Your task to perform on an android device: toggle javascript in the chrome app Image 0: 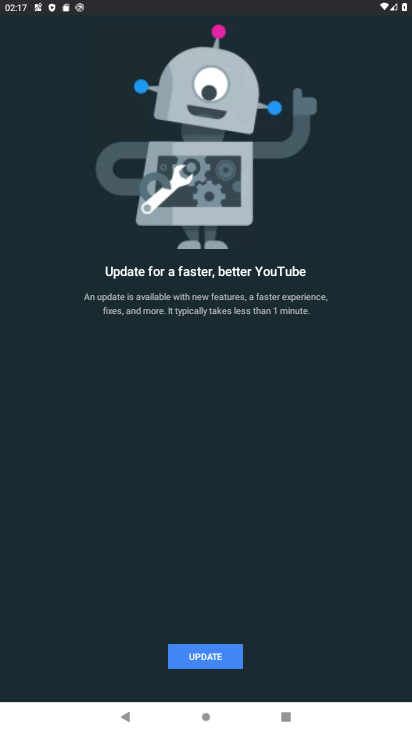
Step 0: press back button
Your task to perform on an android device: toggle javascript in the chrome app Image 1: 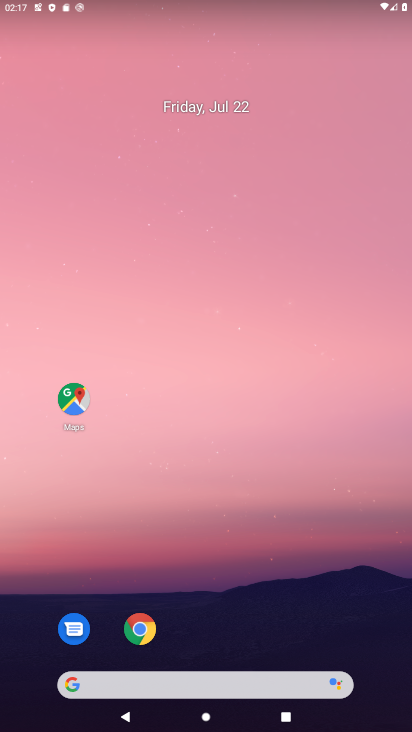
Step 1: click (131, 641)
Your task to perform on an android device: toggle javascript in the chrome app Image 2: 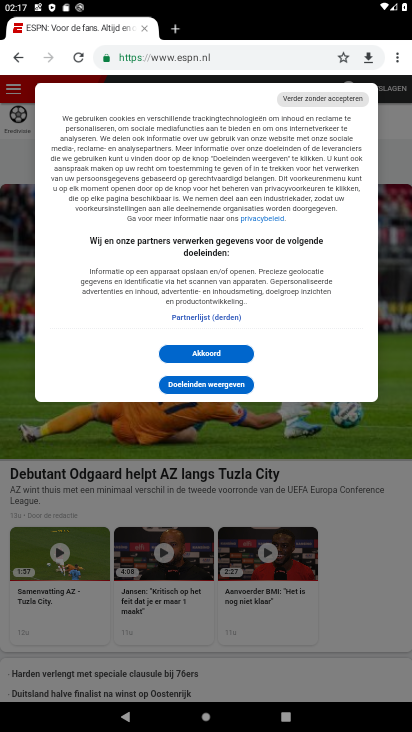
Step 2: click (396, 57)
Your task to perform on an android device: toggle javascript in the chrome app Image 3: 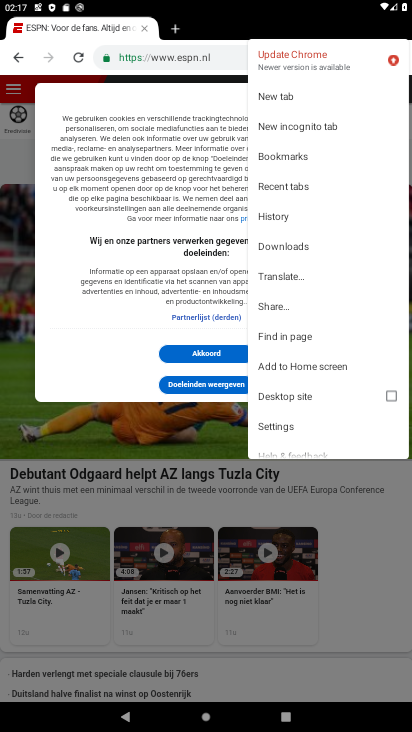
Step 3: drag from (289, 422) to (362, 154)
Your task to perform on an android device: toggle javascript in the chrome app Image 4: 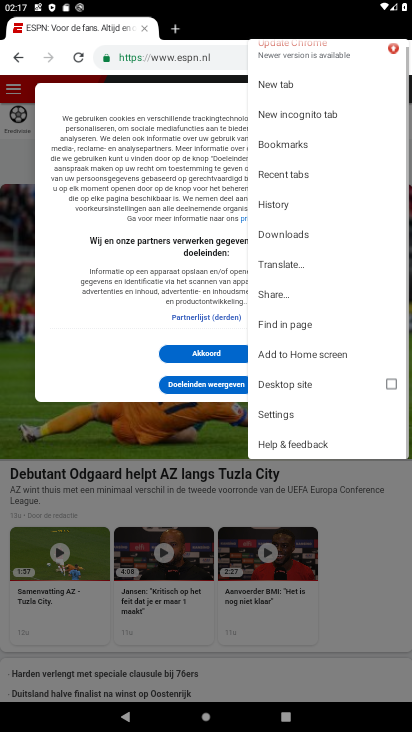
Step 4: click (294, 409)
Your task to perform on an android device: toggle javascript in the chrome app Image 5: 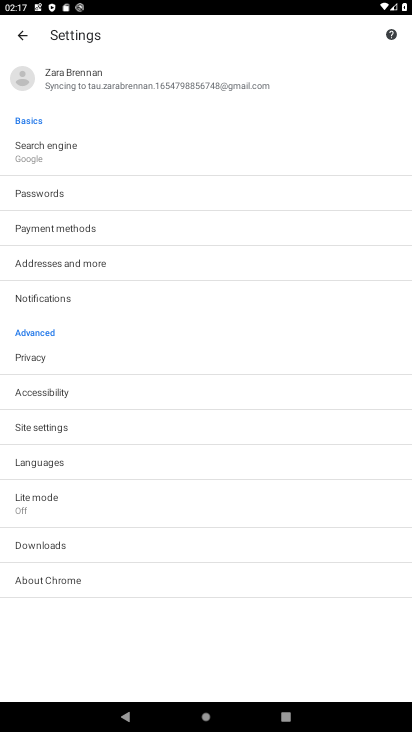
Step 5: click (44, 426)
Your task to perform on an android device: toggle javascript in the chrome app Image 6: 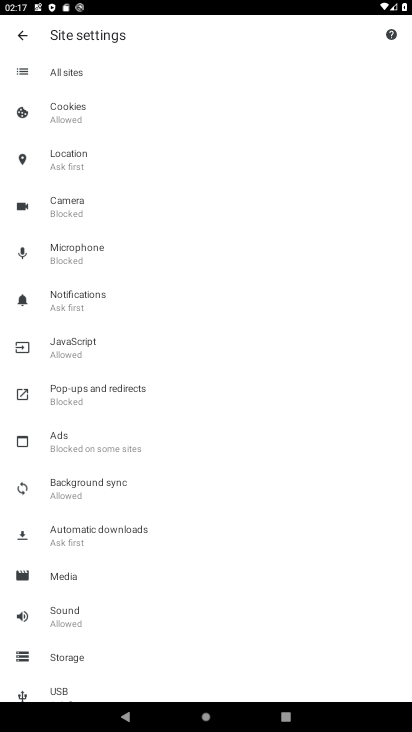
Step 6: click (109, 338)
Your task to perform on an android device: toggle javascript in the chrome app Image 7: 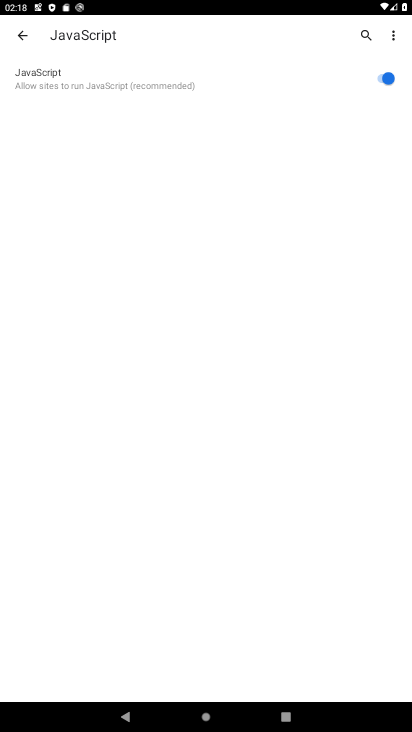
Step 7: click (384, 80)
Your task to perform on an android device: toggle javascript in the chrome app Image 8: 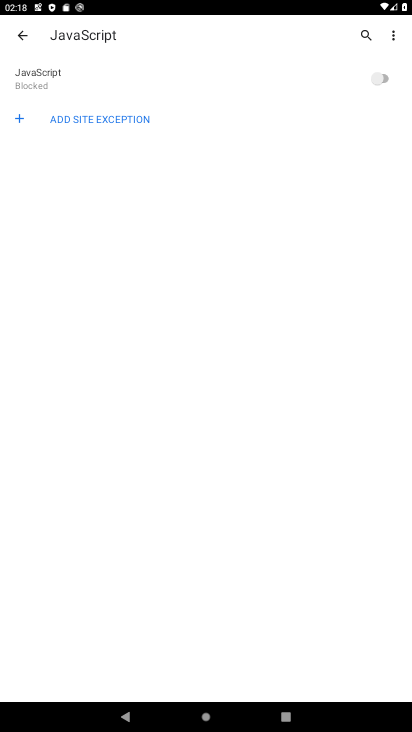
Step 8: task complete